Your task to perform on an android device: empty trash in google photos Image 0: 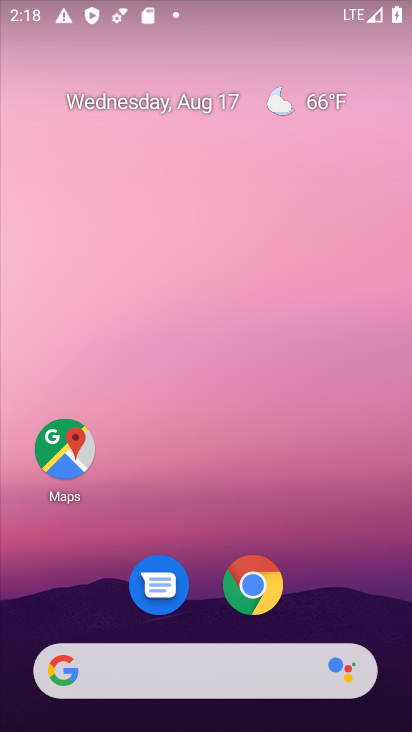
Step 0: drag from (214, 511) to (239, 0)
Your task to perform on an android device: empty trash in google photos Image 1: 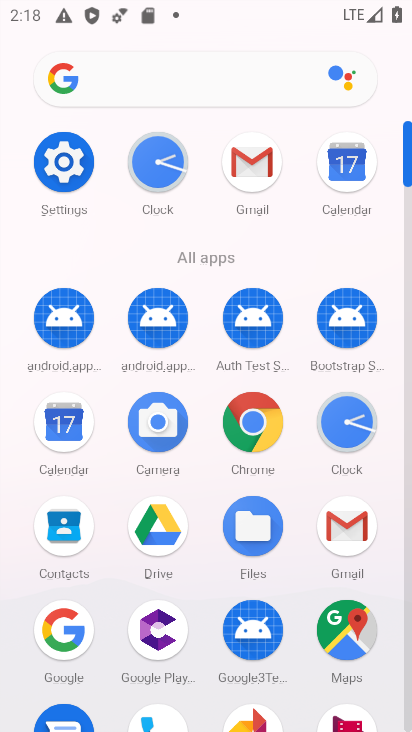
Step 1: drag from (194, 565) to (245, 190)
Your task to perform on an android device: empty trash in google photos Image 2: 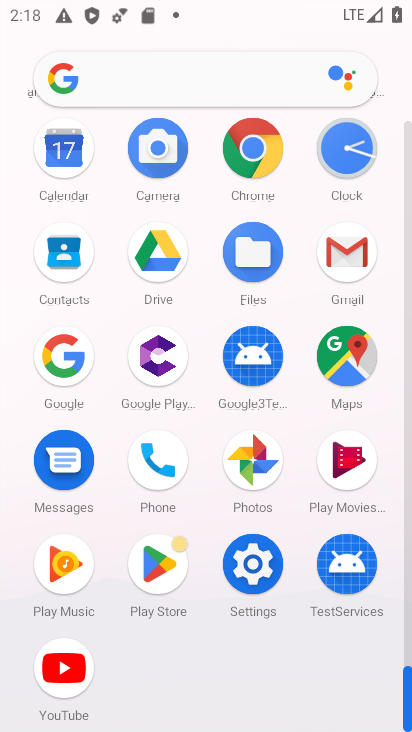
Step 2: click (259, 463)
Your task to perform on an android device: empty trash in google photos Image 3: 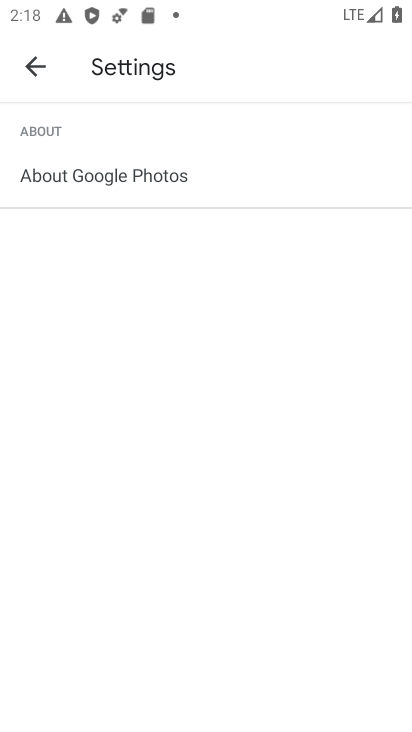
Step 3: click (38, 63)
Your task to perform on an android device: empty trash in google photos Image 4: 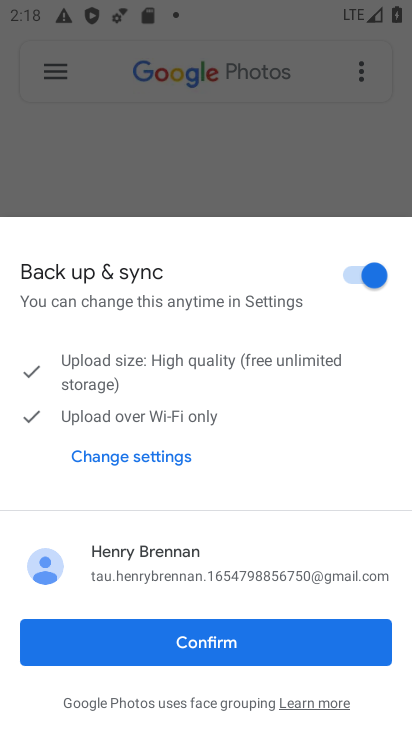
Step 4: click (267, 637)
Your task to perform on an android device: empty trash in google photos Image 5: 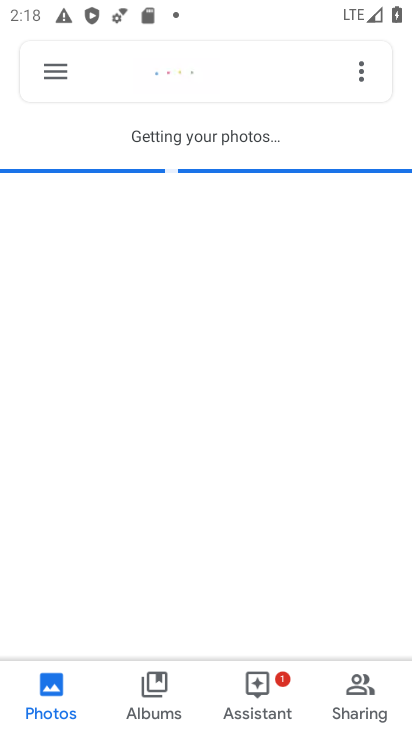
Step 5: click (45, 68)
Your task to perform on an android device: empty trash in google photos Image 6: 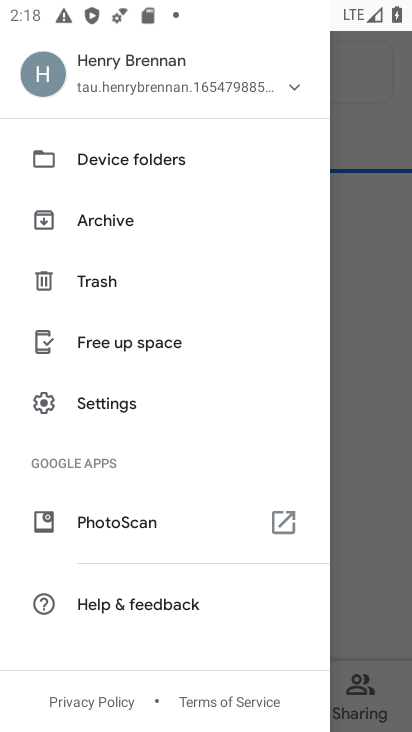
Step 6: click (90, 279)
Your task to perform on an android device: empty trash in google photos Image 7: 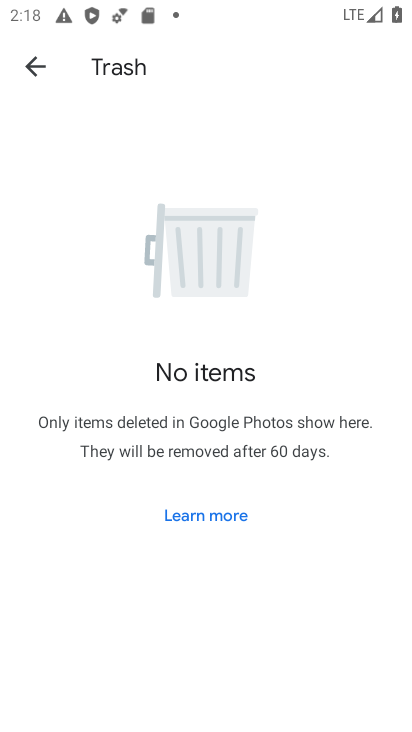
Step 7: task complete